Your task to perform on an android device: Search for Italian restaurants on Maps Image 0: 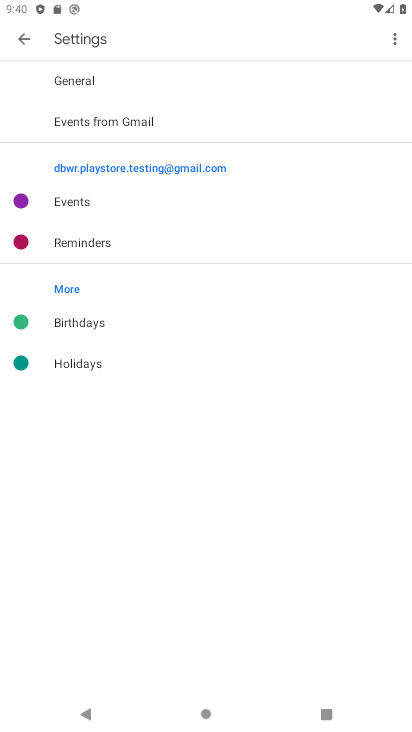
Step 0: press home button
Your task to perform on an android device: Search for Italian restaurants on Maps Image 1: 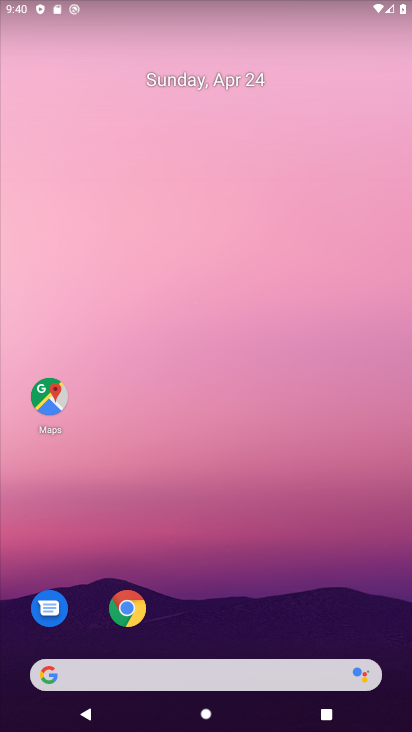
Step 1: drag from (268, 688) to (202, 356)
Your task to perform on an android device: Search for Italian restaurants on Maps Image 2: 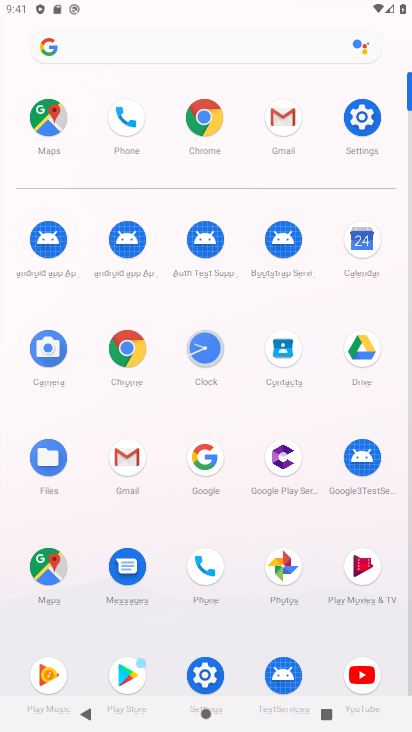
Step 2: click (53, 565)
Your task to perform on an android device: Search for Italian restaurants on Maps Image 3: 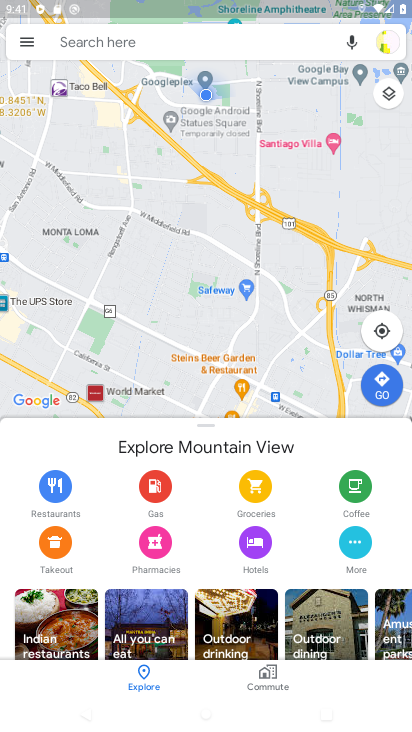
Step 3: click (137, 35)
Your task to perform on an android device: Search for Italian restaurants on Maps Image 4: 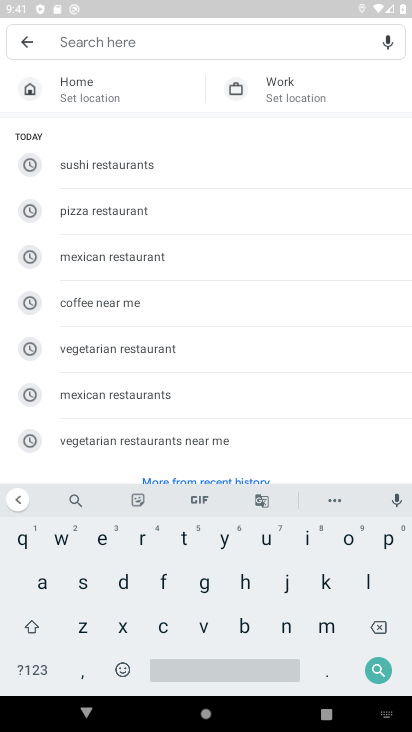
Step 4: click (304, 537)
Your task to perform on an android device: Search for Italian restaurants on Maps Image 5: 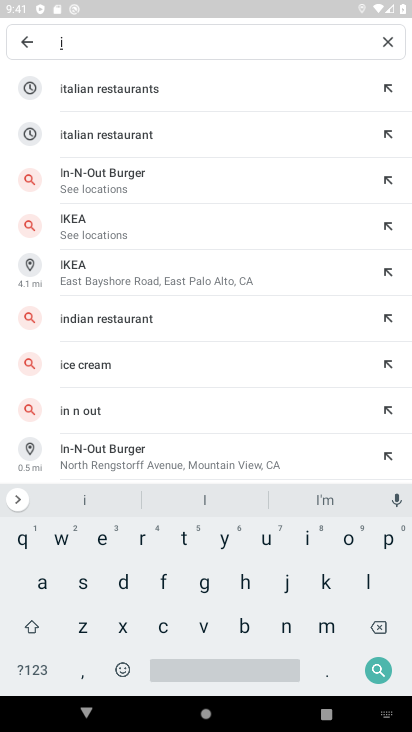
Step 5: click (137, 98)
Your task to perform on an android device: Search for Italian restaurants on Maps Image 6: 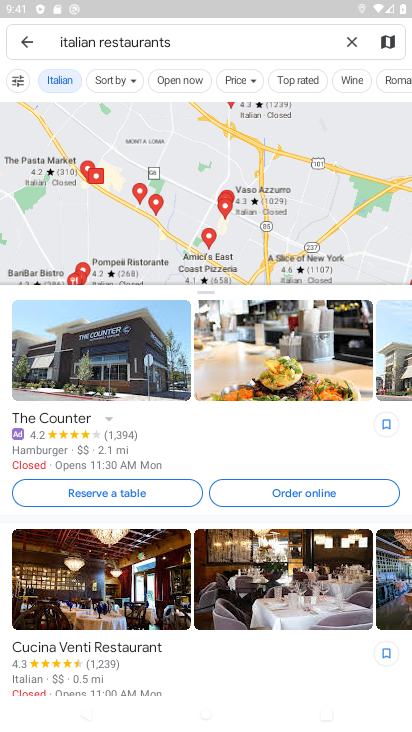
Step 6: task complete